Your task to perform on an android device: Open privacy settings Image 0: 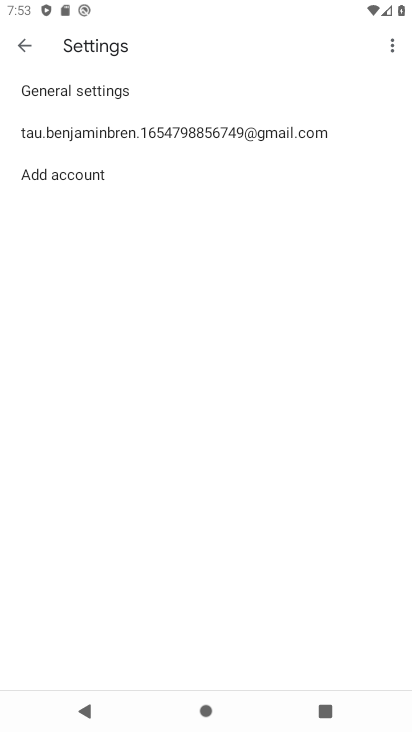
Step 0: press home button
Your task to perform on an android device: Open privacy settings Image 1: 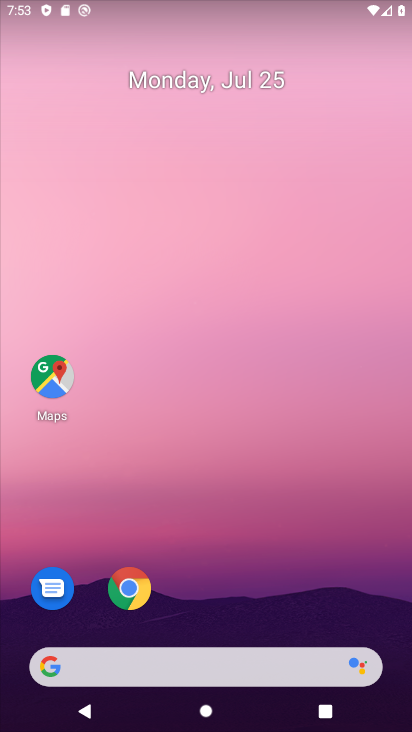
Step 1: drag from (119, 634) to (168, 186)
Your task to perform on an android device: Open privacy settings Image 2: 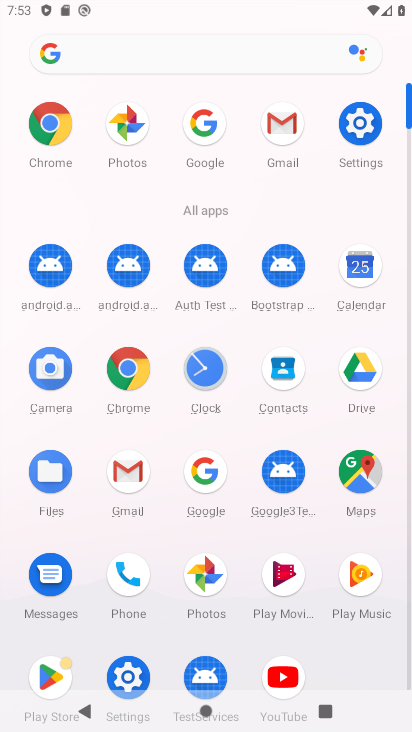
Step 2: click (114, 665)
Your task to perform on an android device: Open privacy settings Image 3: 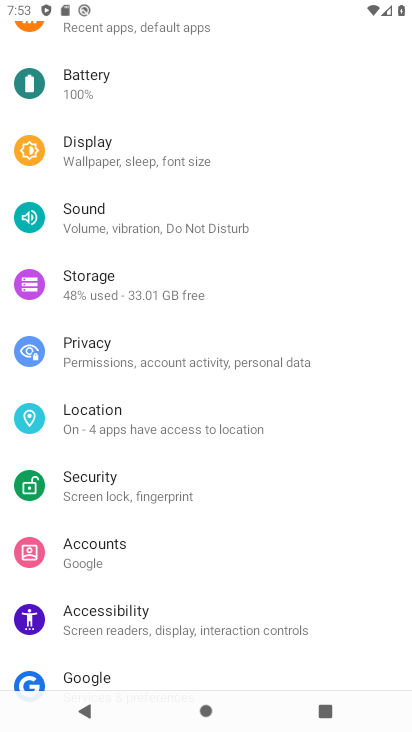
Step 3: click (107, 354)
Your task to perform on an android device: Open privacy settings Image 4: 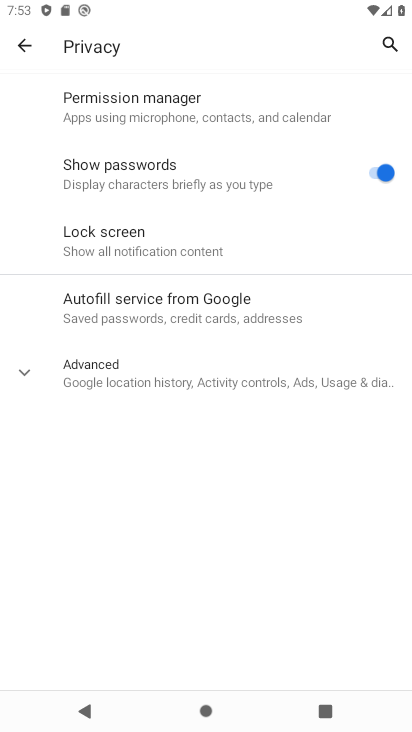
Step 4: click (86, 387)
Your task to perform on an android device: Open privacy settings Image 5: 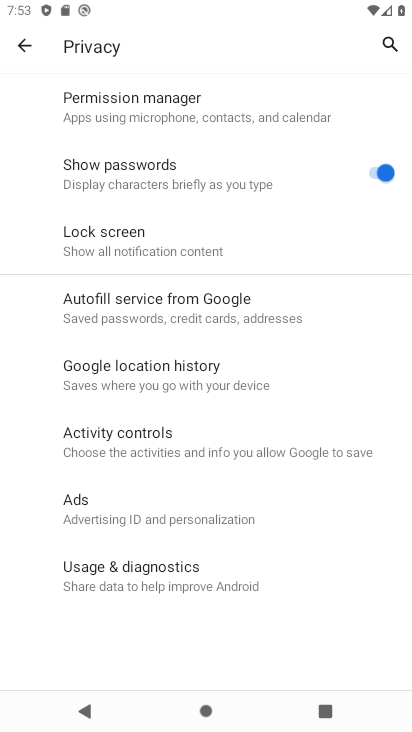
Step 5: task complete